Your task to perform on an android device: Go to battery settings Image 0: 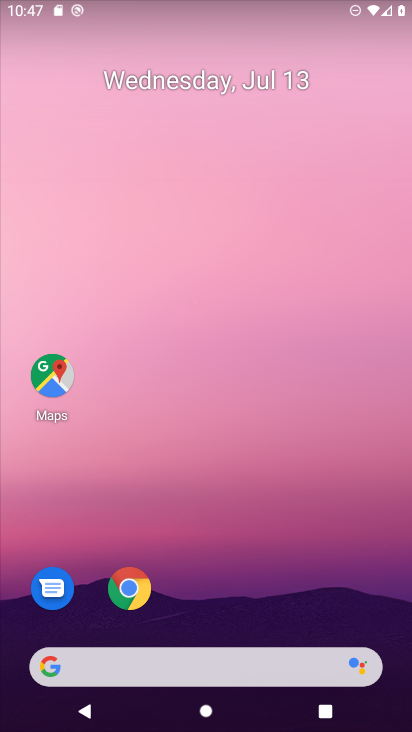
Step 0: drag from (199, 646) to (219, 116)
Your task to perform on an android device: Go to battery settings Image 1: 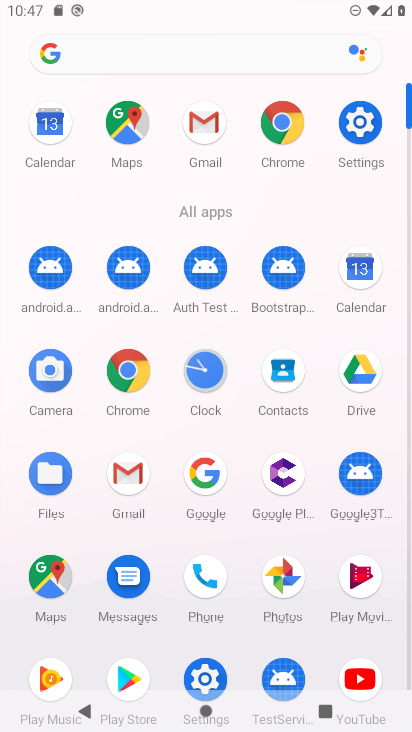
Step 1: click (212, 675)
Your task to perform on an android device: Go to battery settings Image 2: 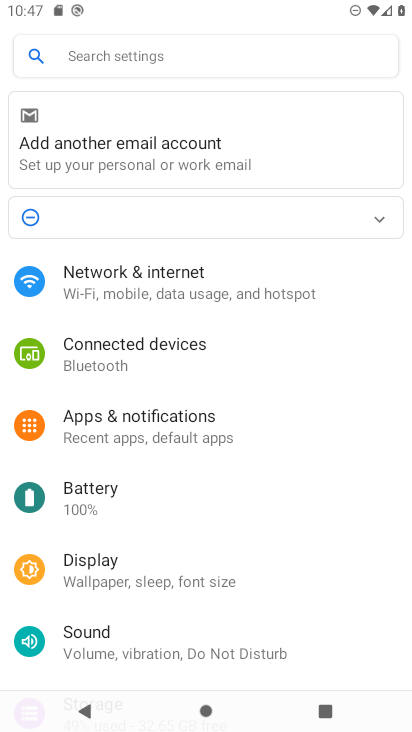
Step 2: click (123, 510)
Your task to perform on an android device: Go to battery settings Image 3: 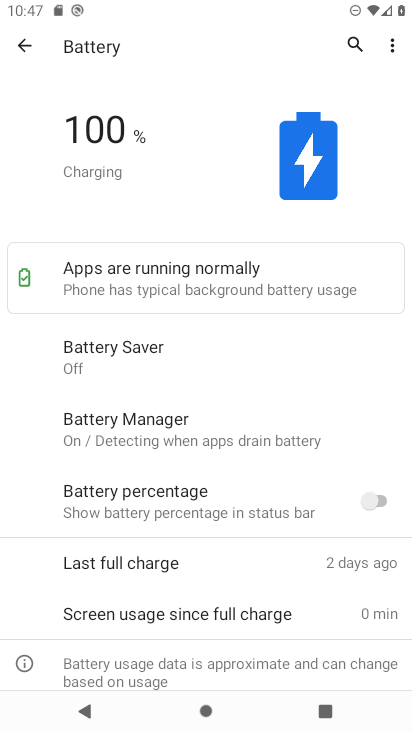
Step 3: task complete